Your task to perform on an android device: Open Maps and search for coffee Image 0: 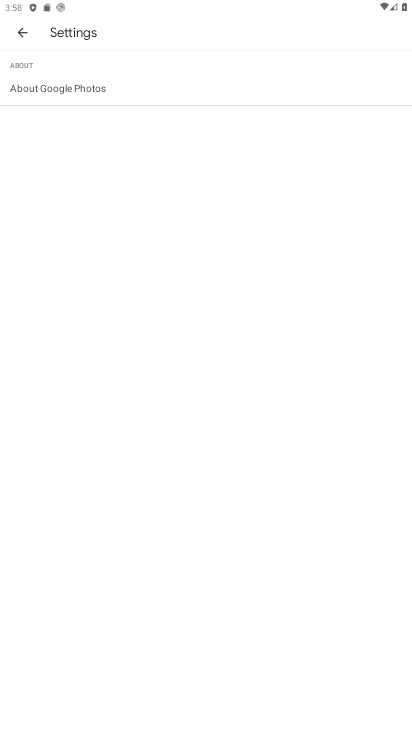
Step 0: click (19, 28)
Your task to perform on an android device: Open Maps and search for coffee Image 1: 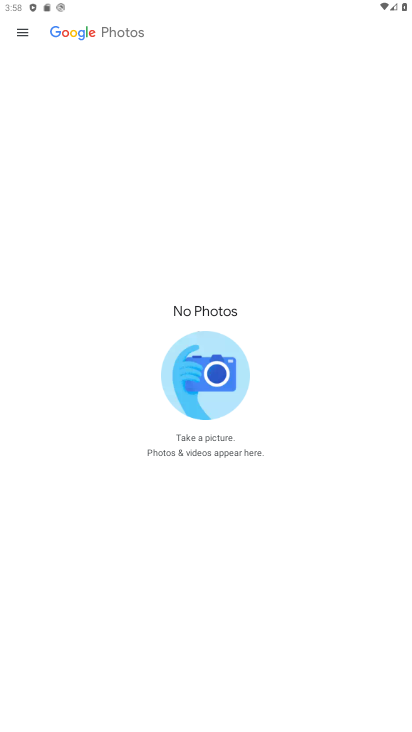
Step 1: press back button
Your task to perform on an android device: Open Maps and search for coffee Image 2: 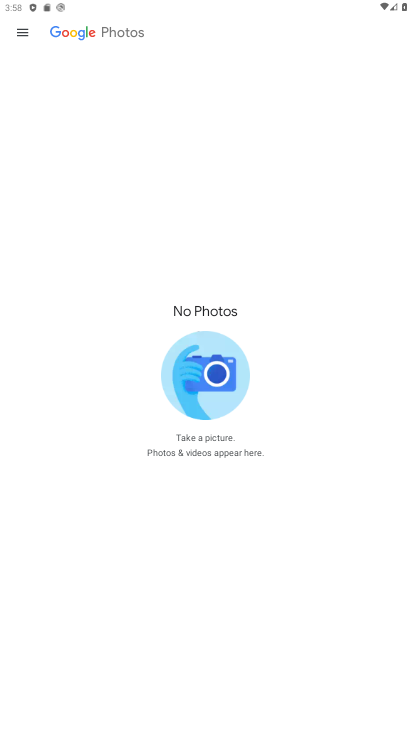
Step 2: press back button
Your task to perform on an android device: Open Maps and search for coffee Image 3: 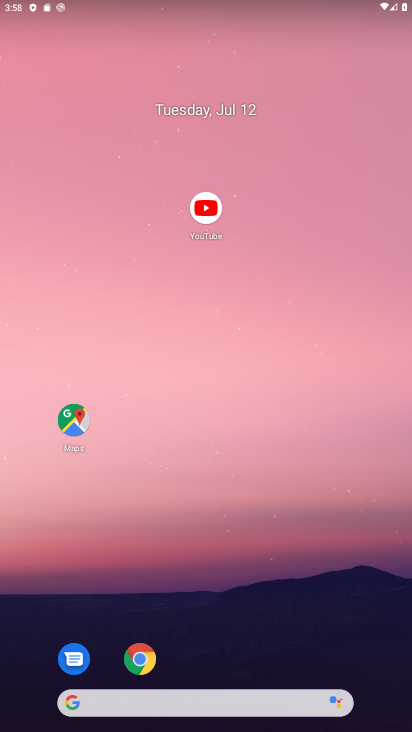
Step 3: press home button
Your task to perform on an android device: Open Maps and search for coffee Image 4: 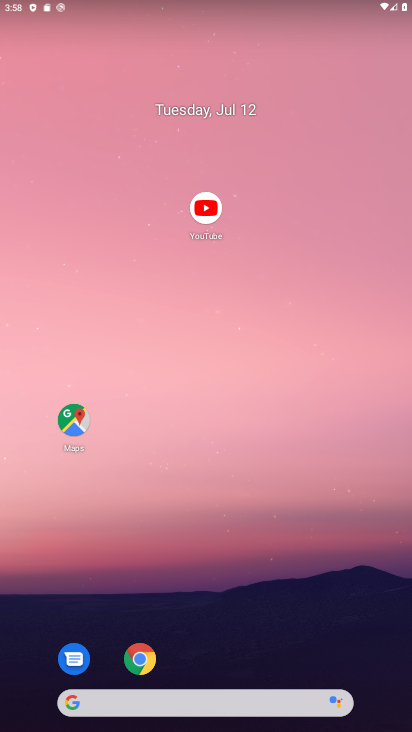
Step 4: drag from (279, 717) to (106, 125)
Your task to perform on an android device: Open Maps and search for coffee Image 5: 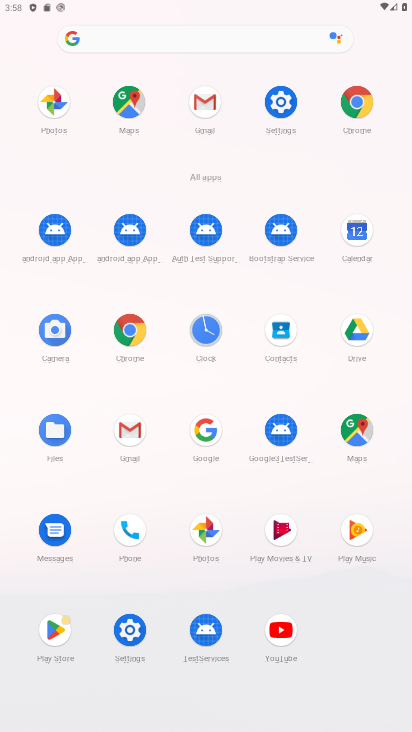
Step 5: click (354, 423)
Your task to perform on an android device: Open Maps and search for coffee Image 6: 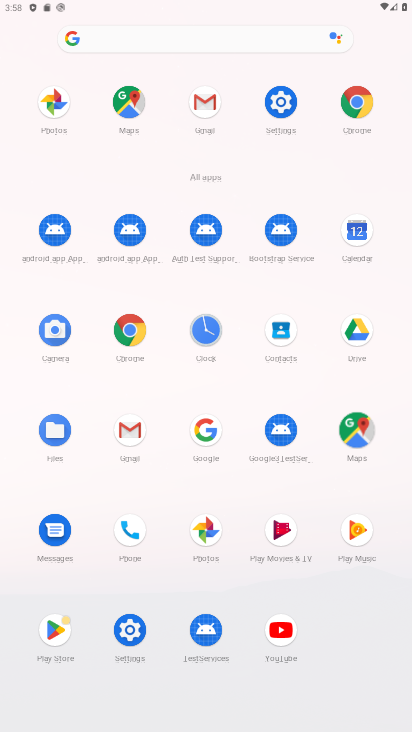
Step 6: click (354, 424)
Your task to perform on an android device: Open Maps and search for coffee Image 7: 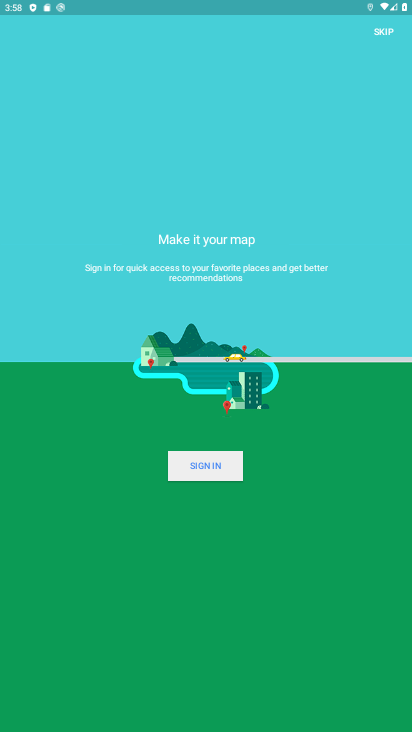
Step 7: click (378, 28)
Your task to perform on an android device: Open Maps and search for coffee Image 8: 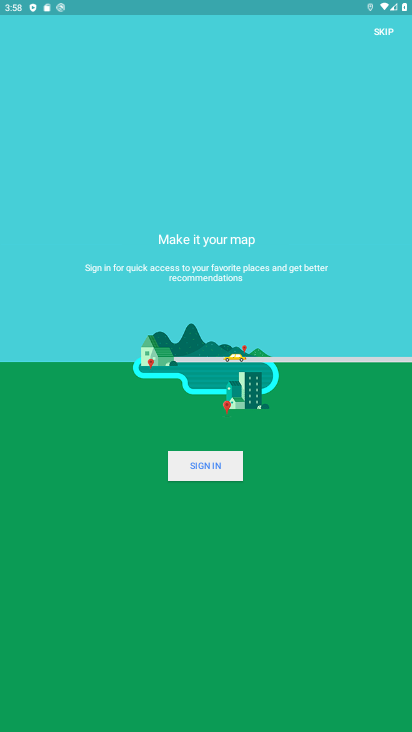
Step 8: click (382, 25)
Your task to perform on an android device: Open Maps and search for coffee Image 9: 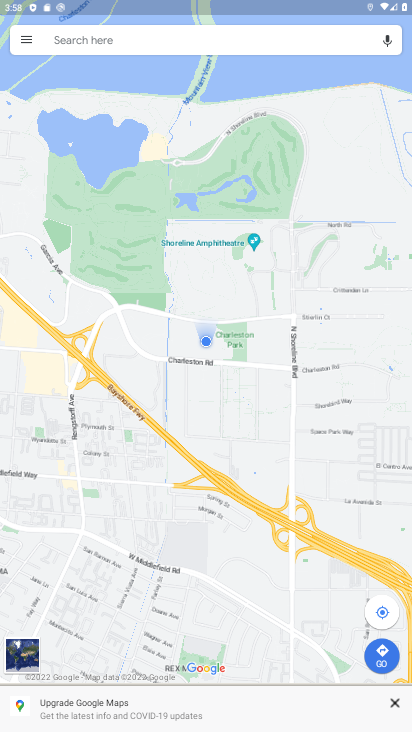
Step 9: click (59, 38)
Your task to perform on an android device: Open Maps and search for coffee Image 10: 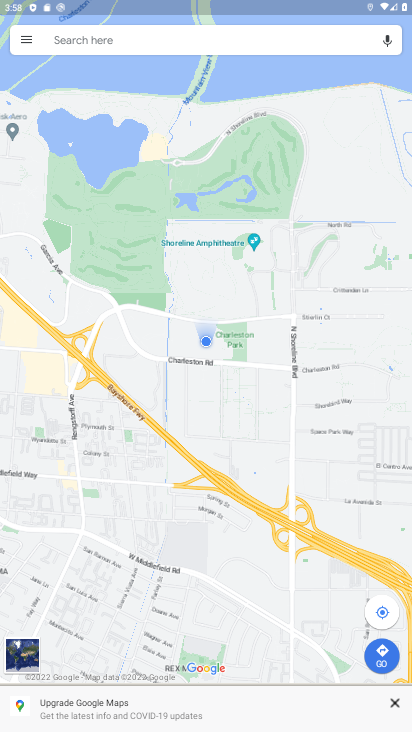
Step 10: click (62, 34)
Your task to perform on an android device: Open Maps and search for coffee Image 11: 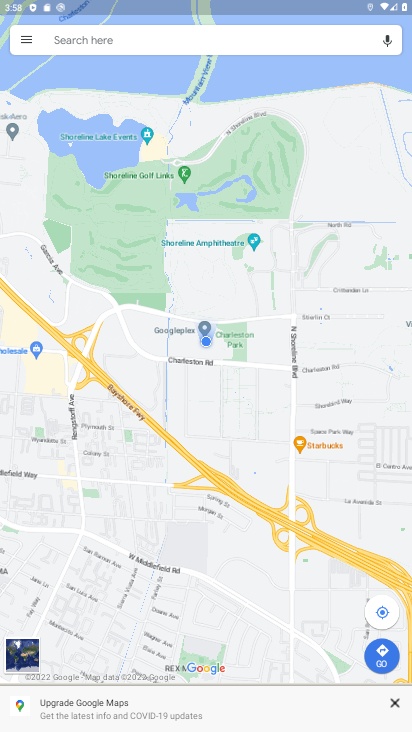
Step 11: click (69, 35)
Your task to perform on an android device: Open Maps and search for coffee Image 12: 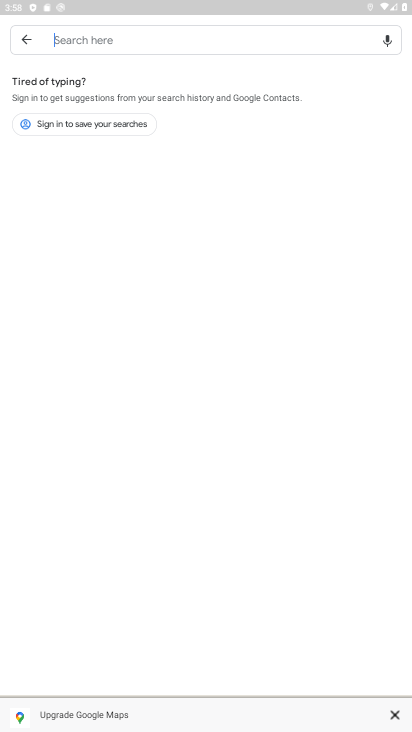
Step 12: click (72, 37)
Your task to perform on an android device: Open Maps and search for coffee Image 13: 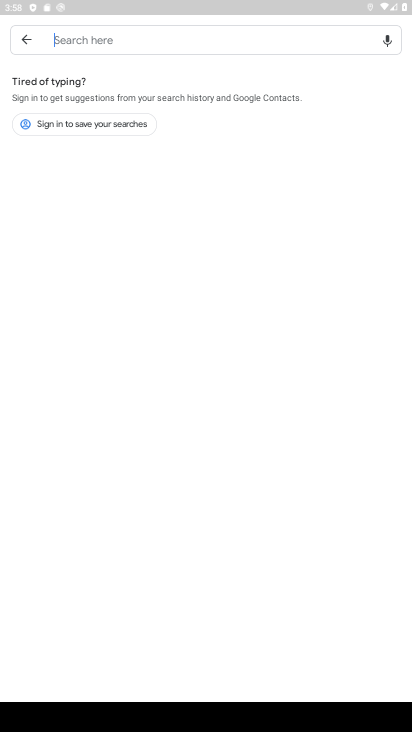
Step 13: click (72, 37)
Your task to perform on an android device: Open Maps and search for coffee Image 14: 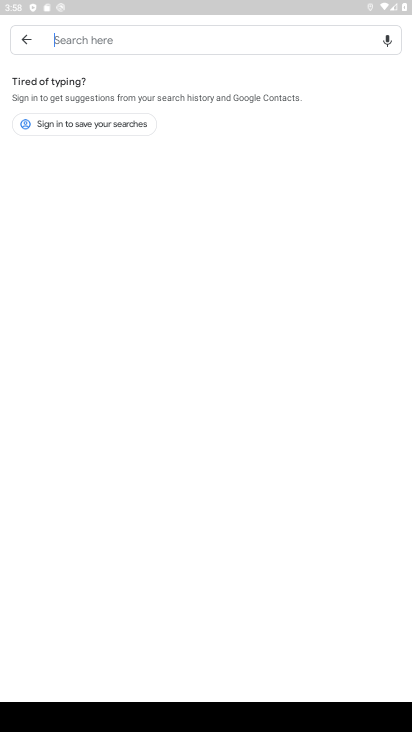
Step 14: click (72, 37)
Your task to perform on an android device: Open Maps and search for coffee Image 15: 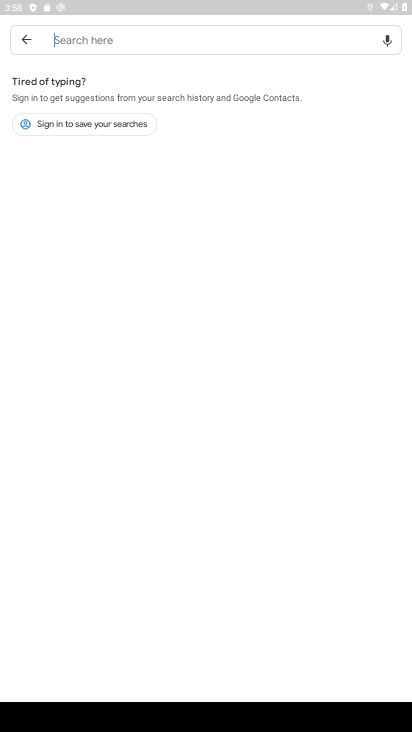
Step 15: click (72, 37)
Your task to perform on an android device: Open Maps and search for coffee Image 16: 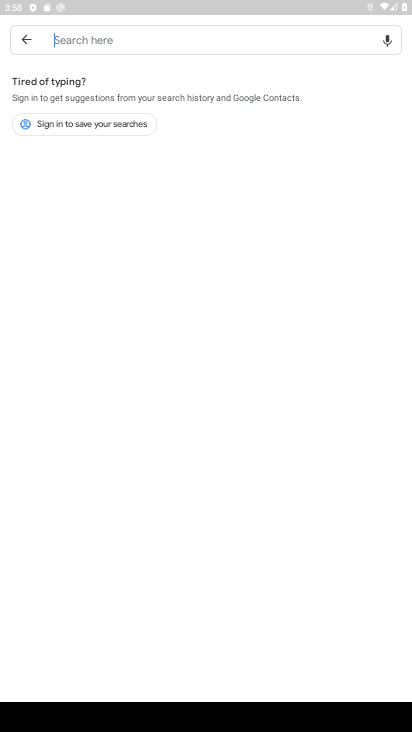
Step 16: click (72, 37)
Your task to perform on an android device: Open Maps and search for coffee Image 17: 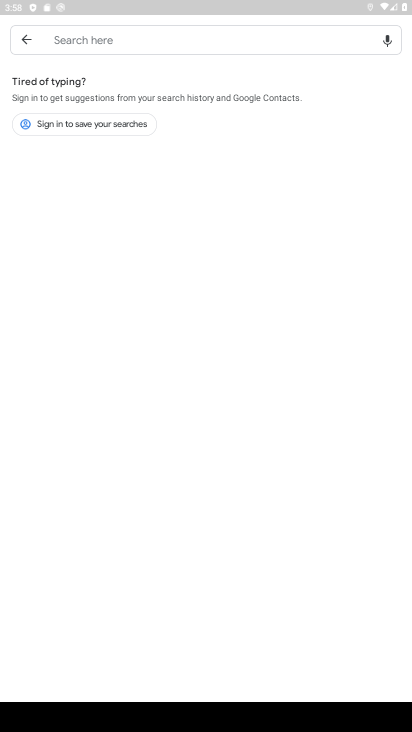
Step 17: click (69, 37)
Your task to perform on an android device: Open Maps and search for coffee Image 18: 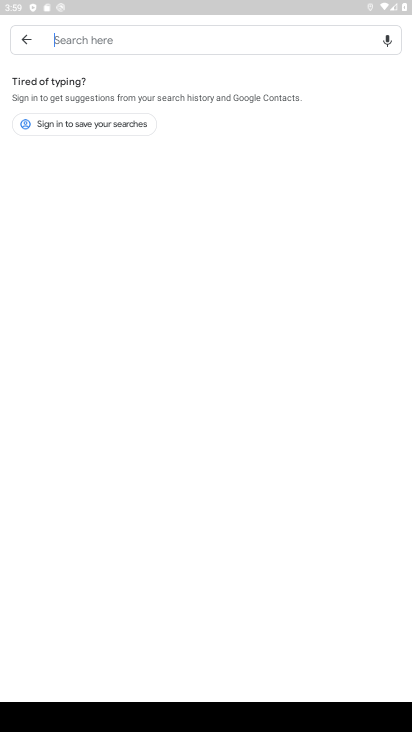
Step 18: type "coffee"
Your task to perform on an android device: Open Maps and search for coffee Image 19: 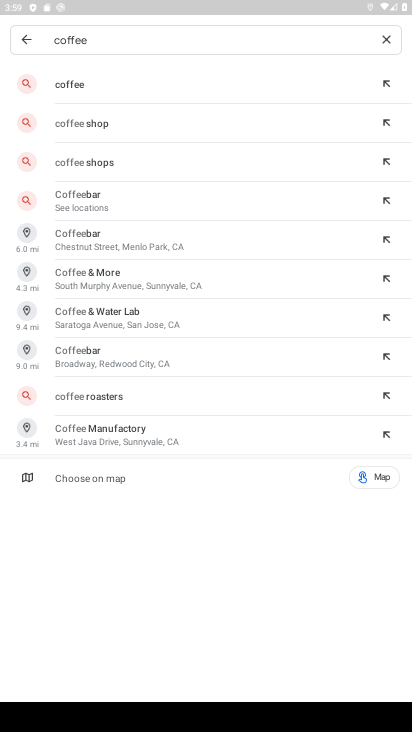
Step 19: click (69, 69)
Your task to perform on an android device: Open Maps and search for coffee Image 20: 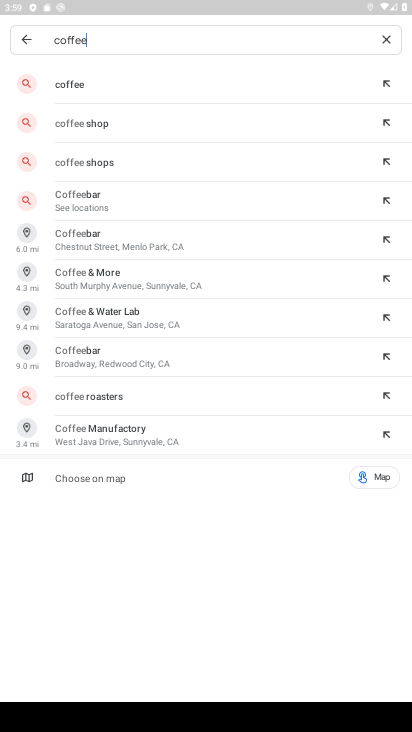
Step 20: click (85, 90)
Your task to perform on an android device: Open Maps and search for coffee Image 21: 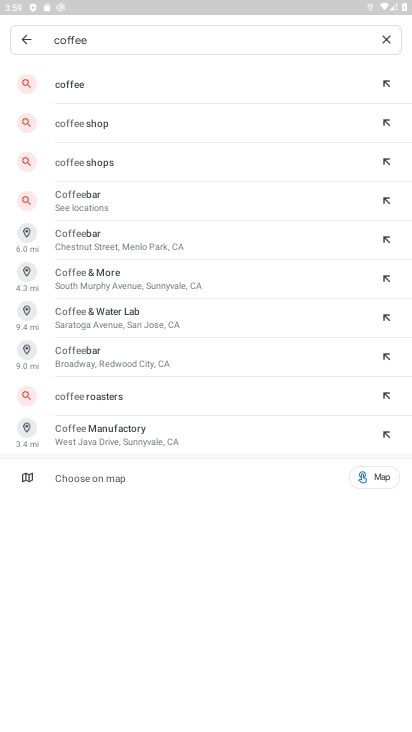
Step 21: click (85, 90)
Your task to perform on an android device: Open Maps and search for coffee Image 22: 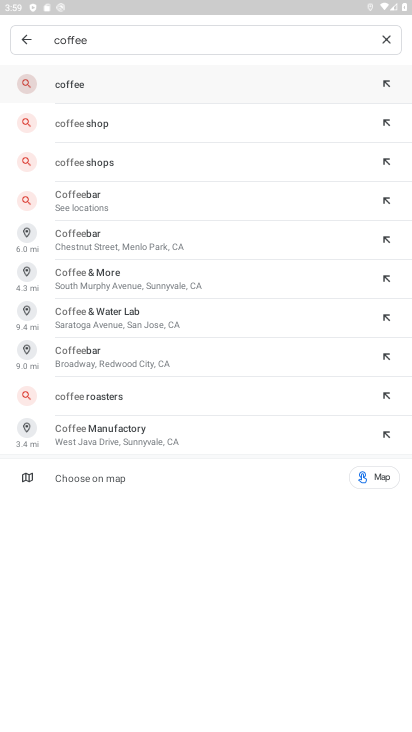
Step 22: click (87, 90)
Your task to perform on an android device: Open Maps and search for coffee Image 23: 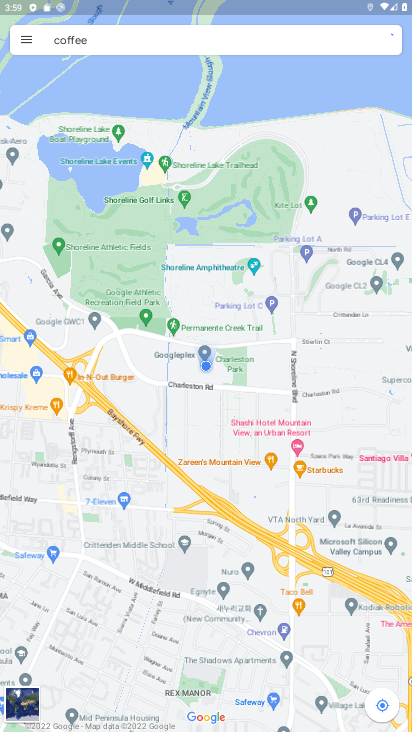
Step 23: task complete